Your task to perform on an android device: Open Google Chrome and click the shortcut for Amazon.com Image 0: 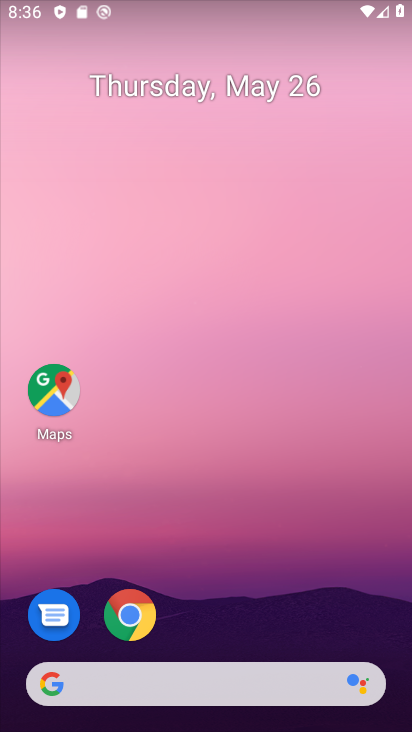
Step 0: click (120, 599)
Your task to perform on an android device: Open Google Chrome and click the shortcut for Amazon.com Image 1: 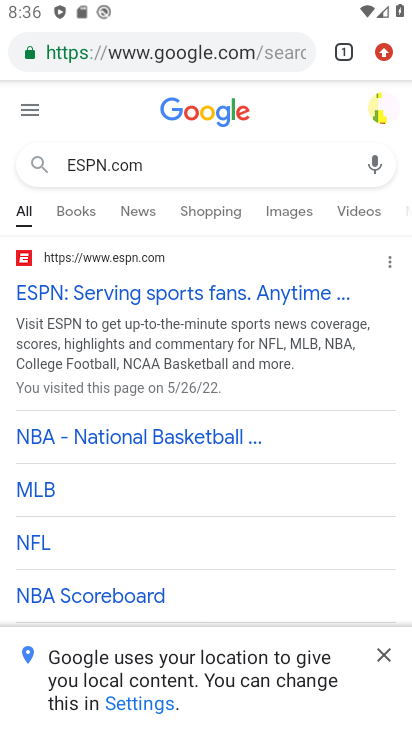
Step 1: click (172, 56)
Your task to perform on an android device: Open Google Chrome and click the shortcut for Amazon.com Image 2: 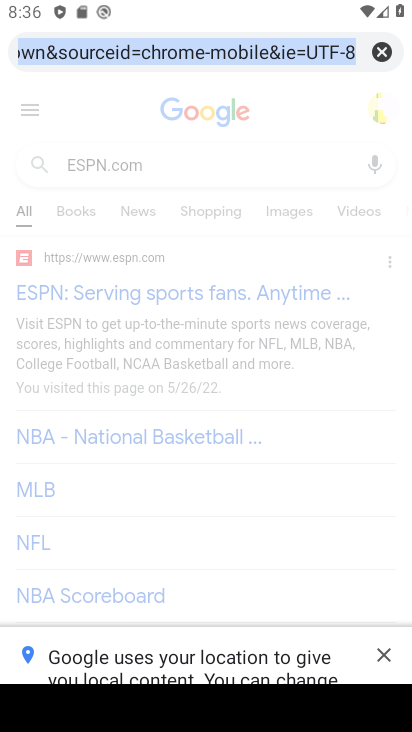
Step 2: type "Amazon.com"
Your task to perform on an android device: Open Google Chrome and click the shortcut for Amazon.com Image 3: 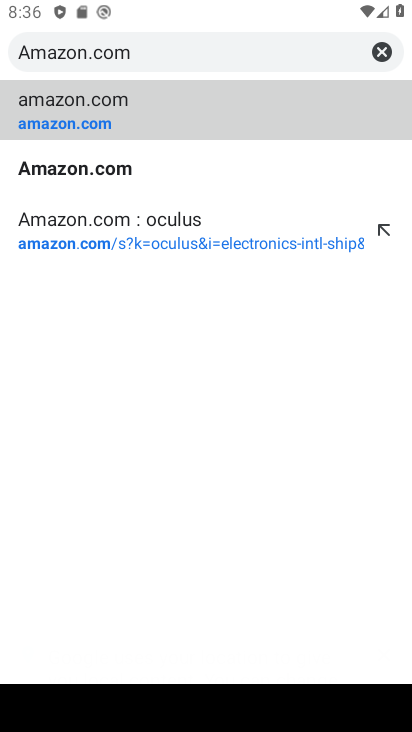
Step 3: click (169, 112)
Your task to perform on an android device: Open Google Chrome and click the shortcut for Amazon.com Image 4: 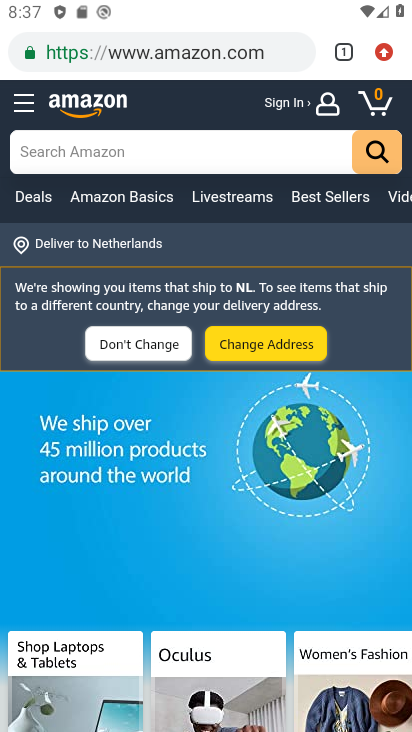
Step 4: task complete